Your task to perform on an android device: change text size in settings app Image 0: 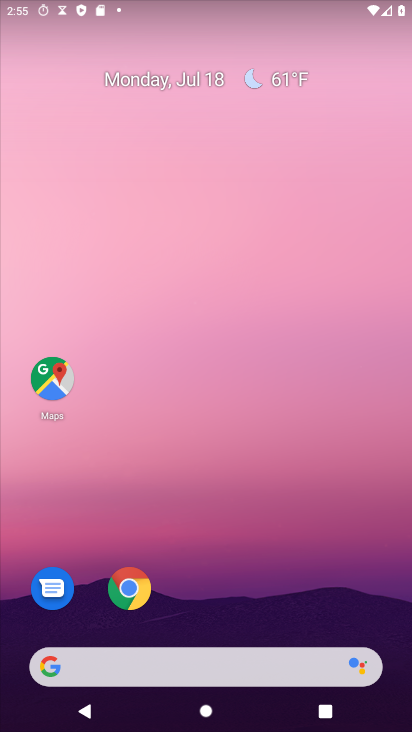
Step 0: drag from (278, 612) to (53, 0)
Your task to perform on an android device: change text size in settings app Image 1: 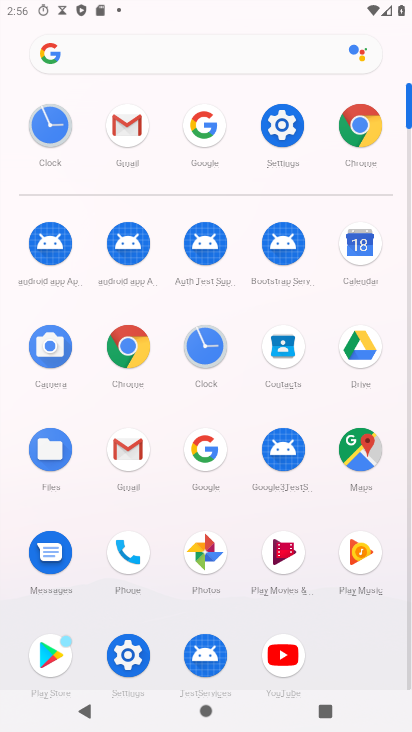
Step 1: click (270, 120)
Your task to perform on an android device: change text size in settings app Image 2: 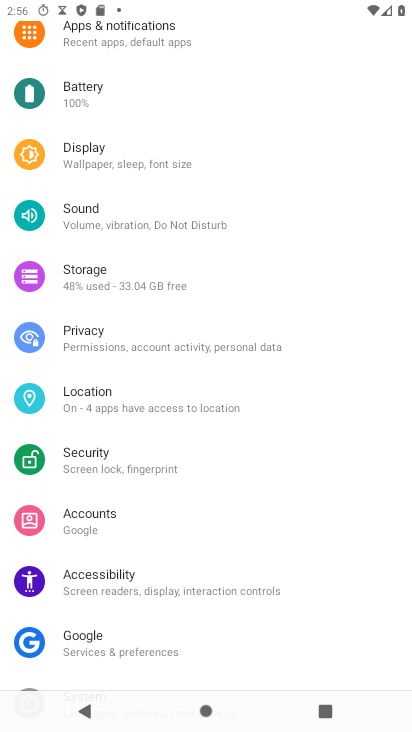
Step 2: click (125, 147)
Your task to perform on an android device: change text size in settings app Image 3: 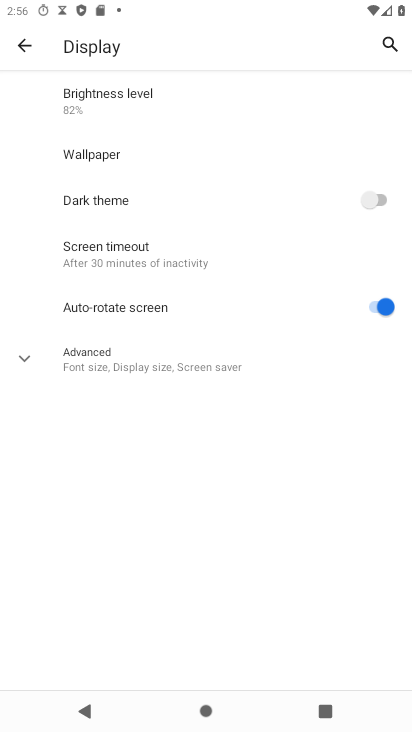
Step 3: click (86, 377)
Your task to perform on an android device: change text size in settings app Image 4: 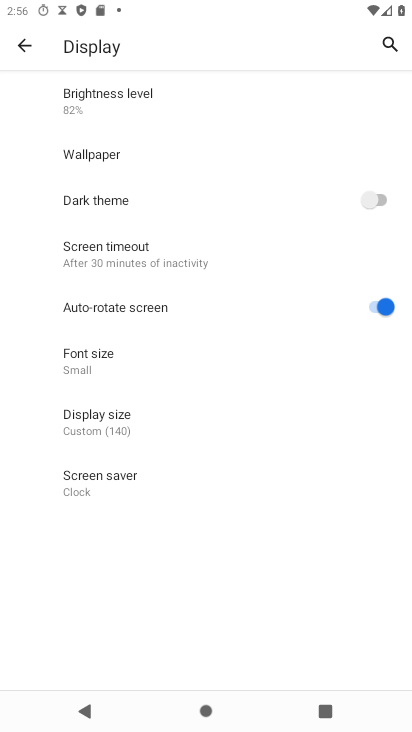
Step 4: click (89, 353)
Your task to perform on an android device: change text size in settings app Image 5: 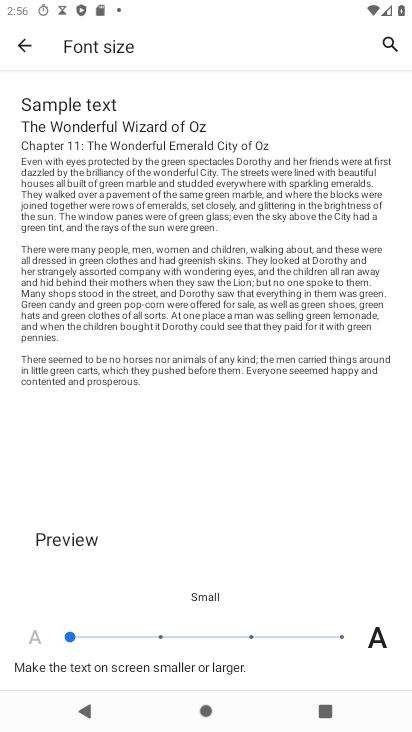
Step 5: click (185, 631)
Your task to perform on an android device: change text size in settings app Image 6: 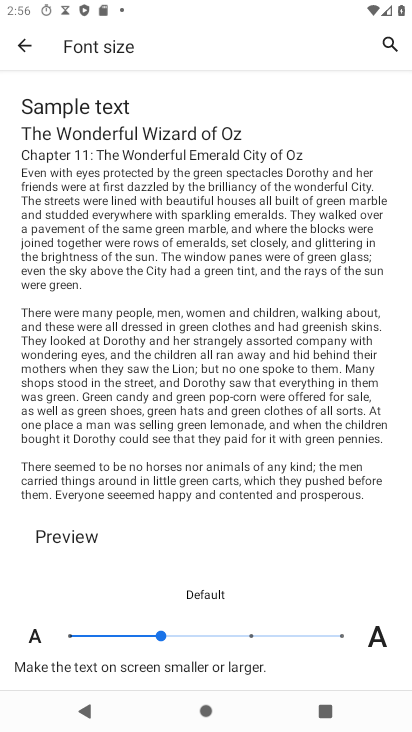
Step 6: task complete